Your task to perform on an android device: Open network settings Image 0: 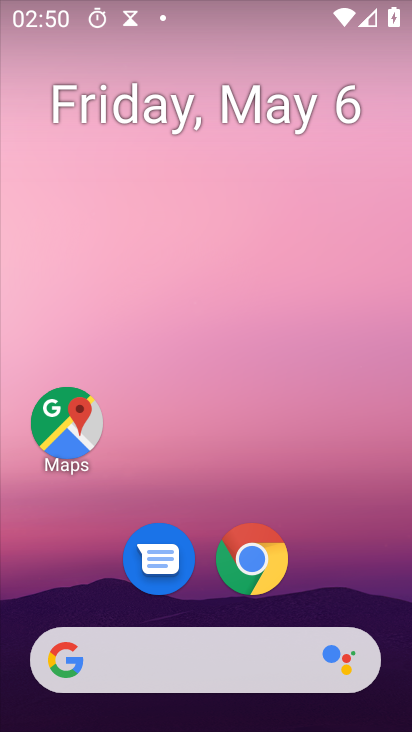
Step 0: drag from (331, 613) to (264, 0)
Your task to perform on an android device: Open network settings Image 1: 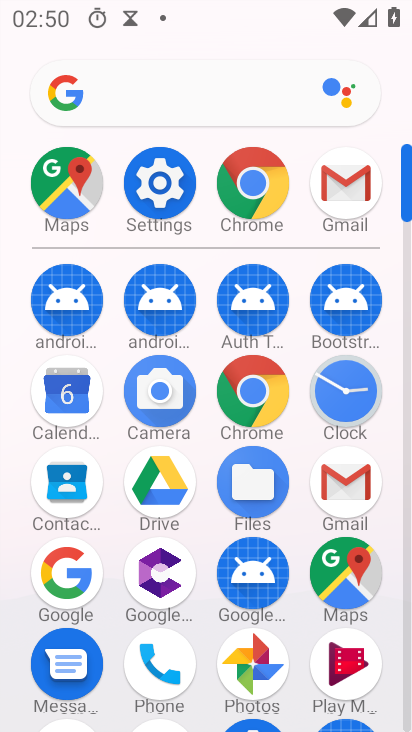
Step 1: click (172, 183)
Your task to perform on an android device: Open network settings Image 2: 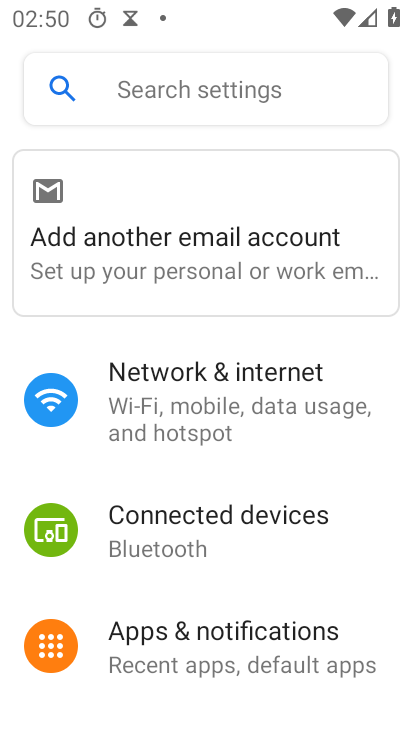
Step 2: click (235, 423)
Your task to perform on an android device: Open network settings Image 3: 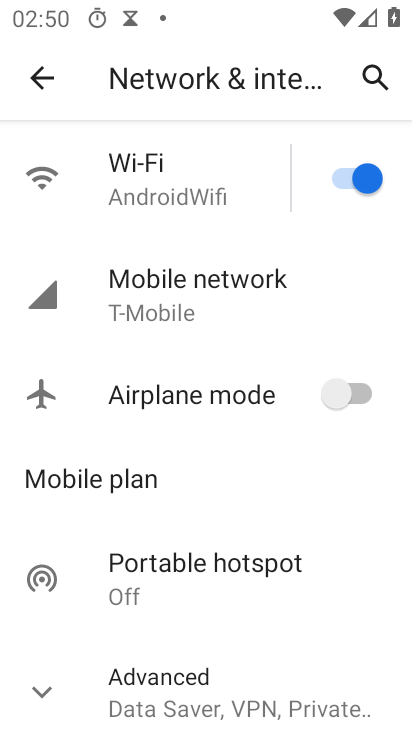
Step 3: click (262, 283)
Your task to perform on an android device: Open network settings Image 4: 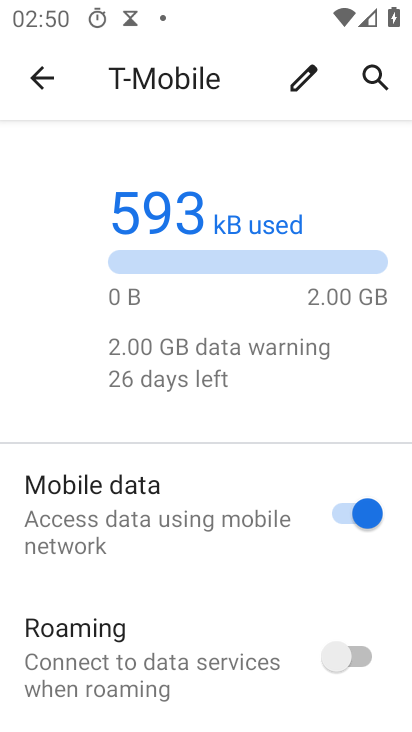
Step 4: task complete